Your task to perform on an android device: Go to sound settings Image 0: 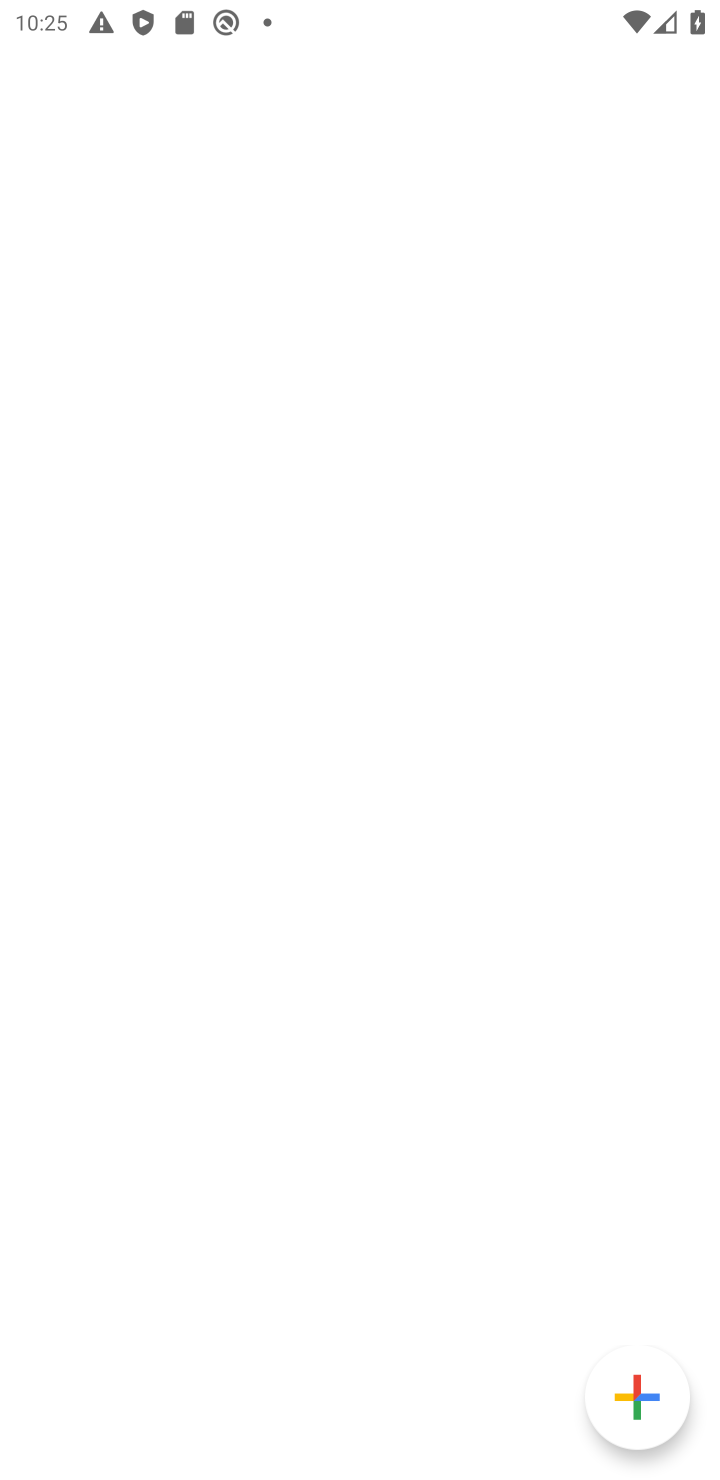
Step 0: press home button
Your task to perform on an android device: Go to sound settings Image 1: 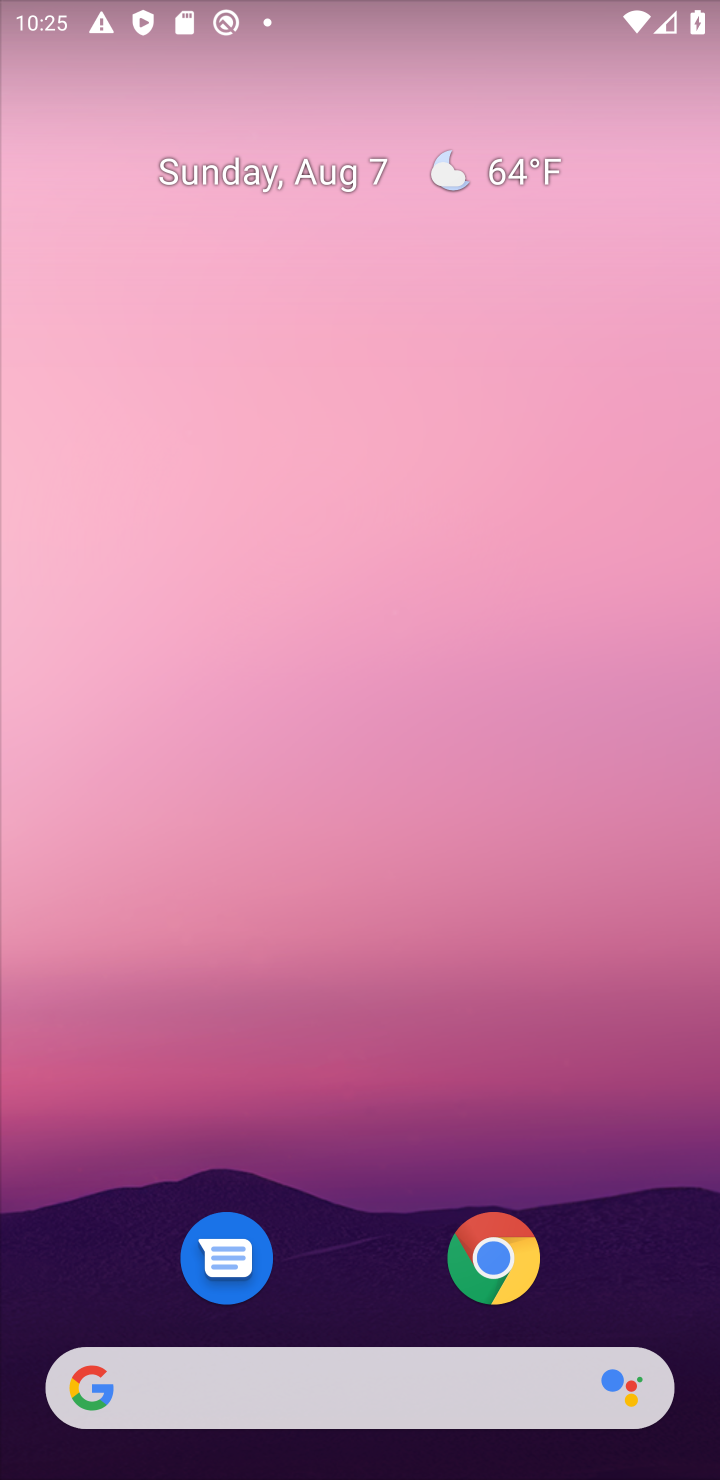
Step 1: drag from (356, 1230) to (403, 341)
Your task to perform on an android device: Go to sound settings Image 2: 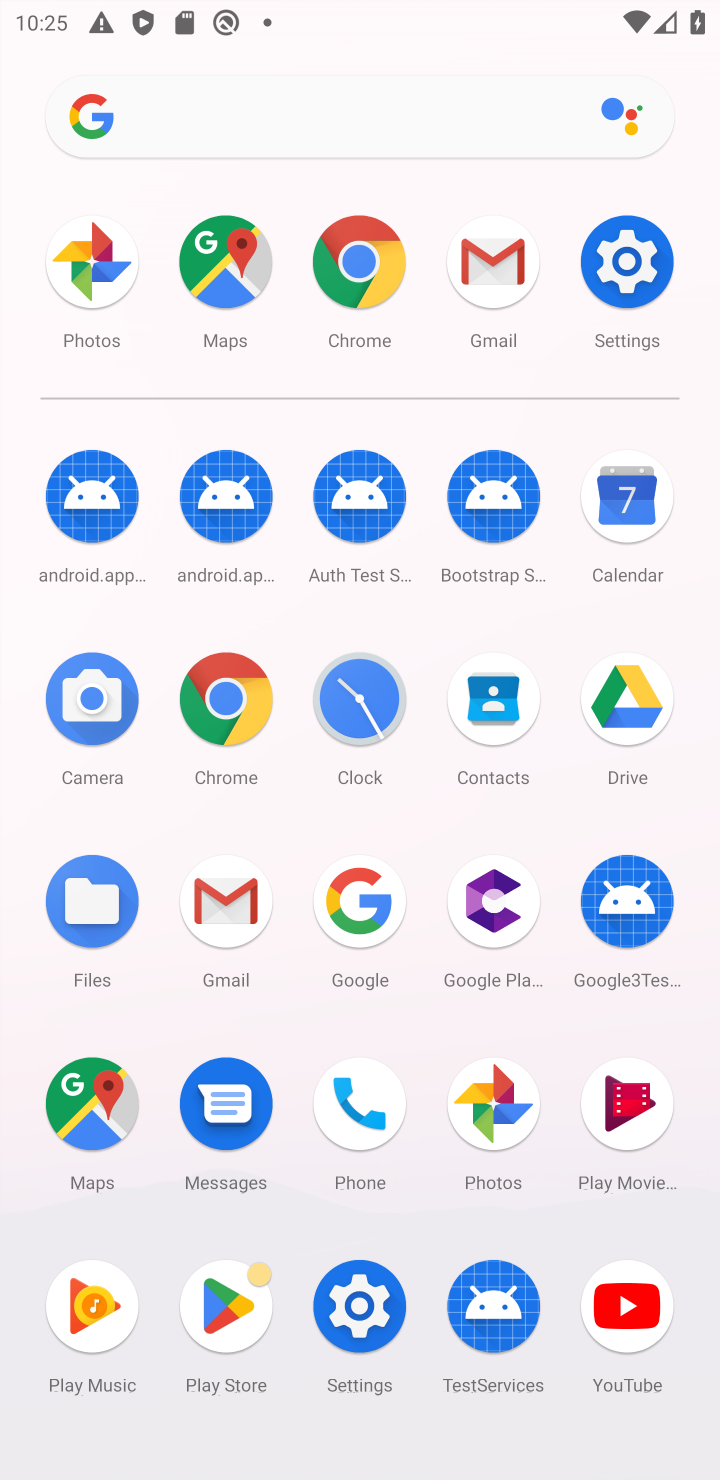
Step 2: click (643, 280)
Your task to perform on an android device: Go to sound settings Image 3: 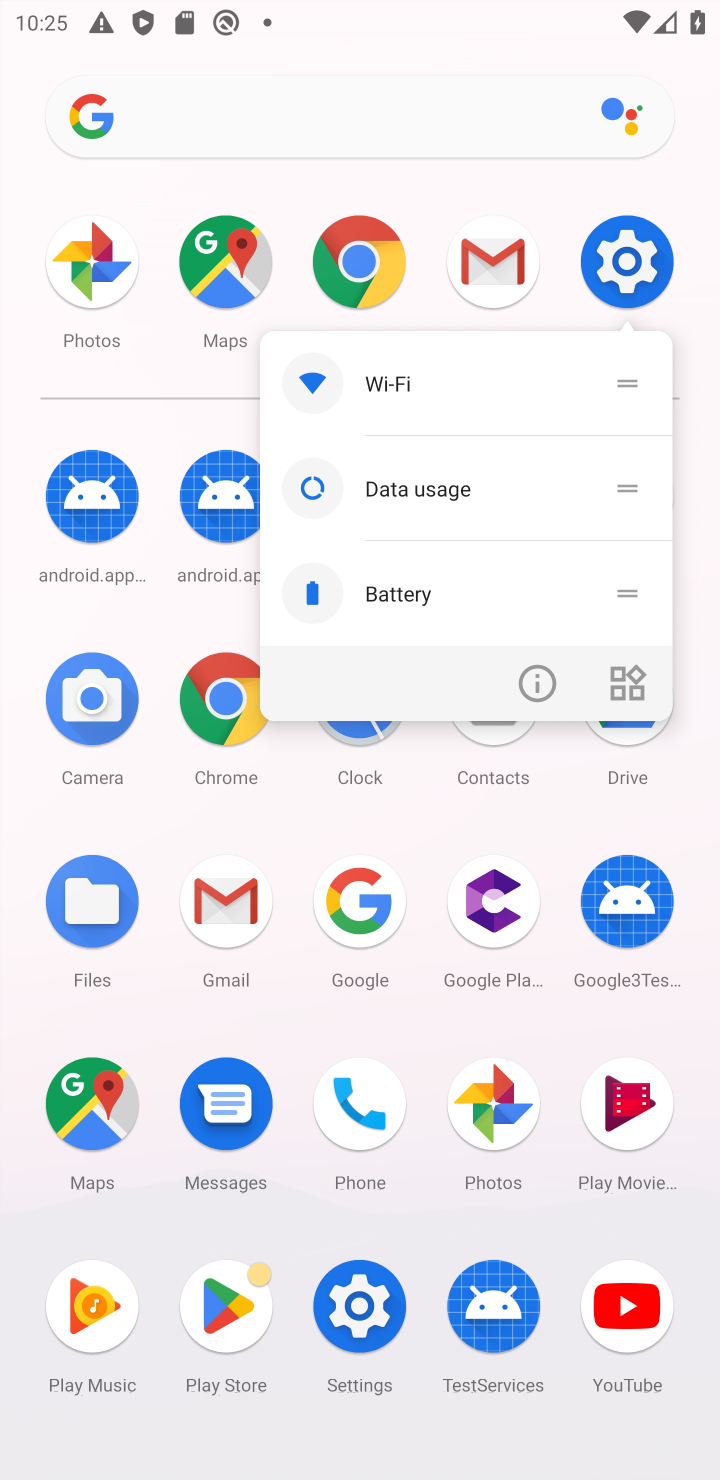
Step 3: click (633, 268)
Your task to perform on an android device: Go to sound settings Image 4: 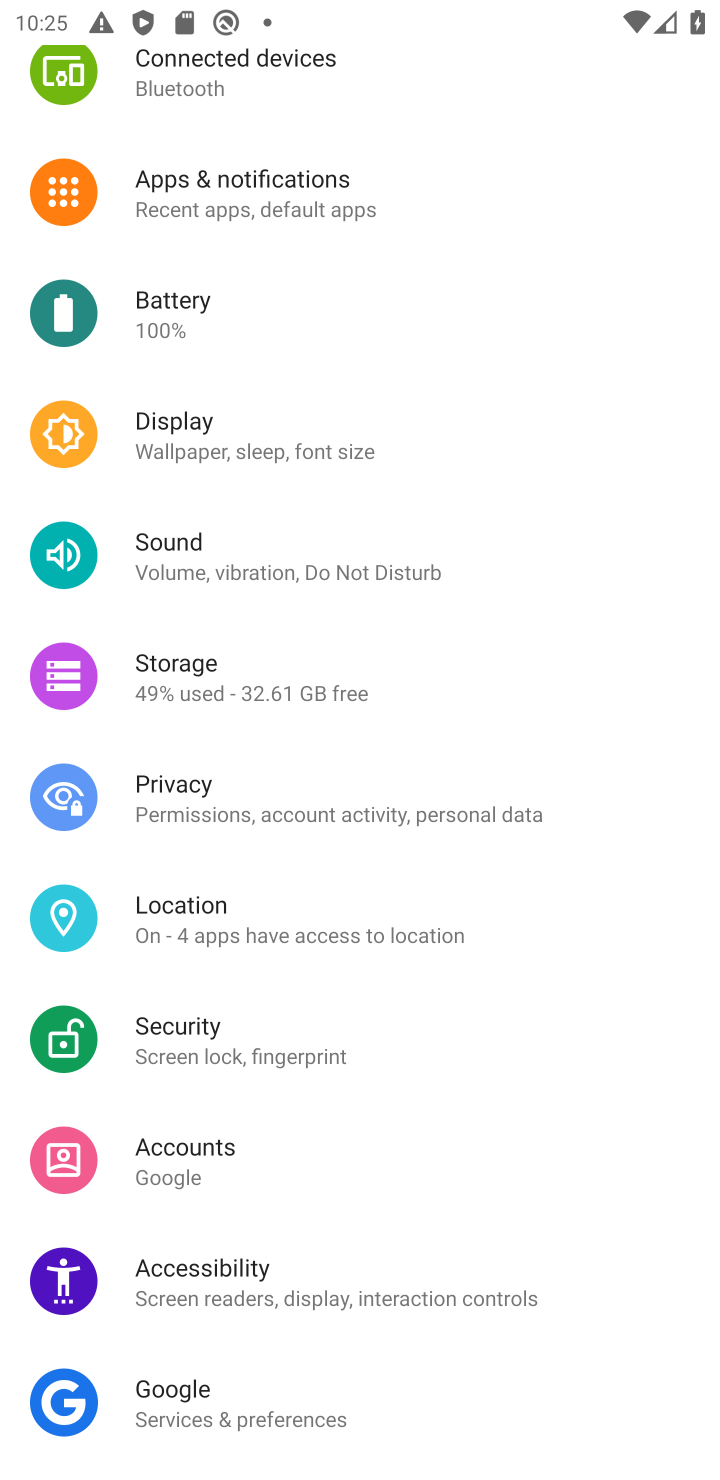
Step 4: click (204, 563)
Your task to perform on an android device: Go to sound settings Image 5: 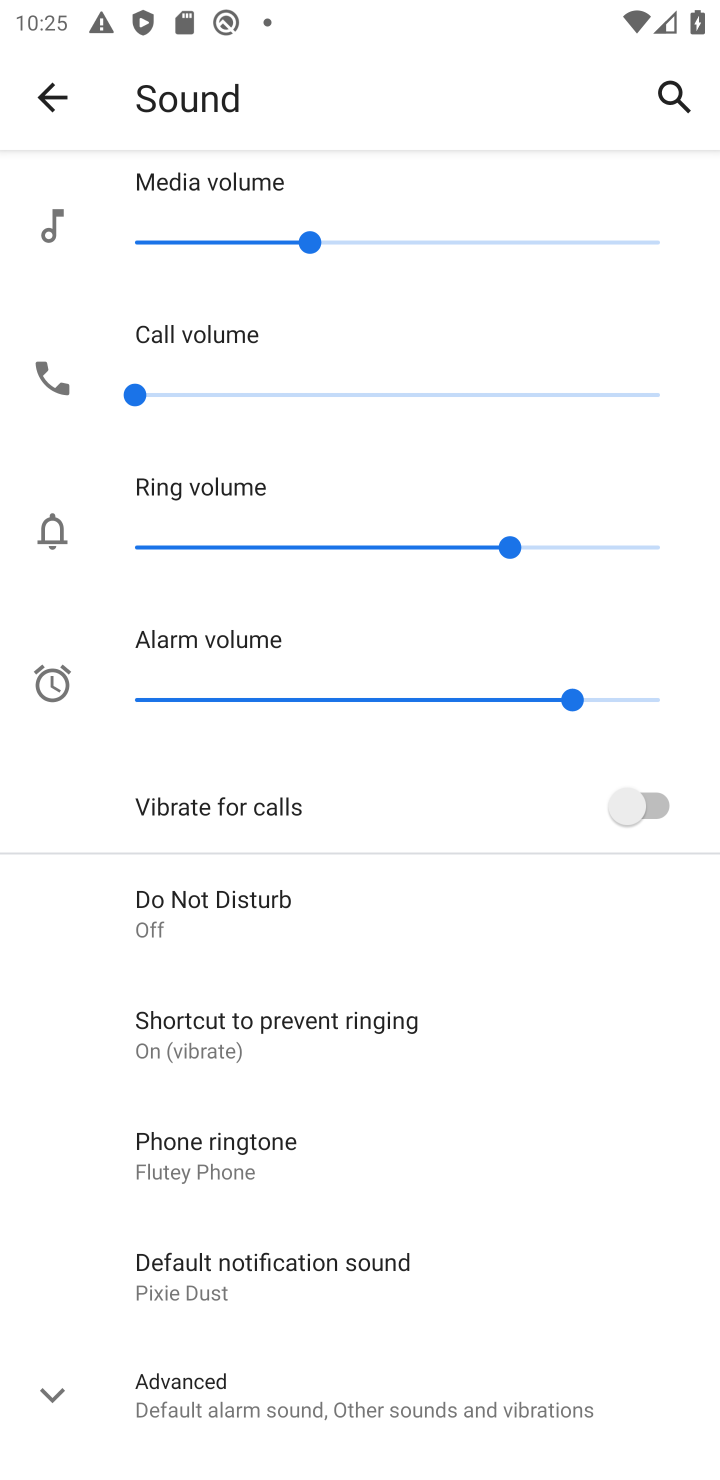
Step 5: task complete